Your task to perform on an android device: Turn on the flashlight Image 0: 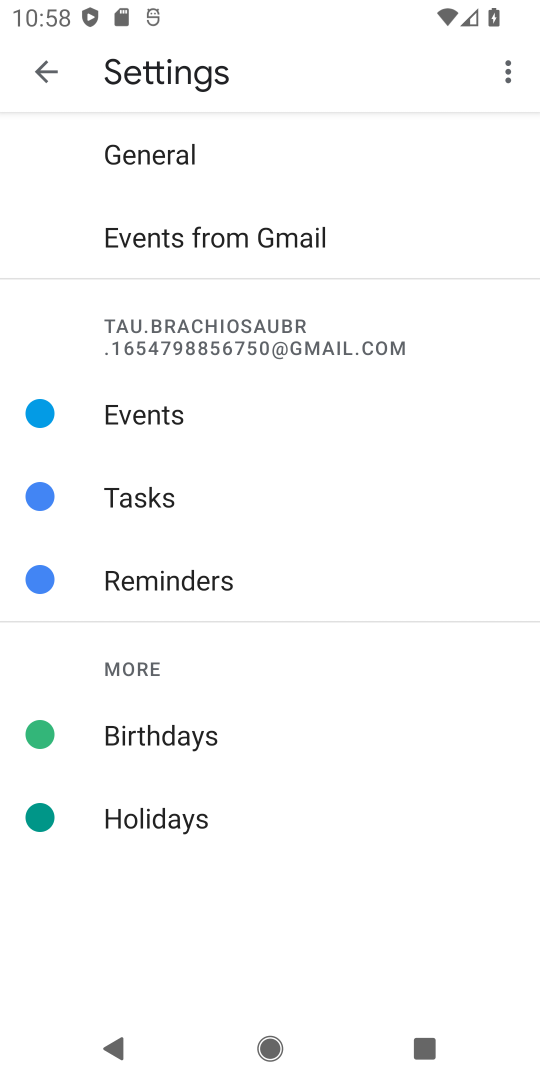
Step 0: press home button
Your task to perform on an android device: Turn on the flashlight Image 1: 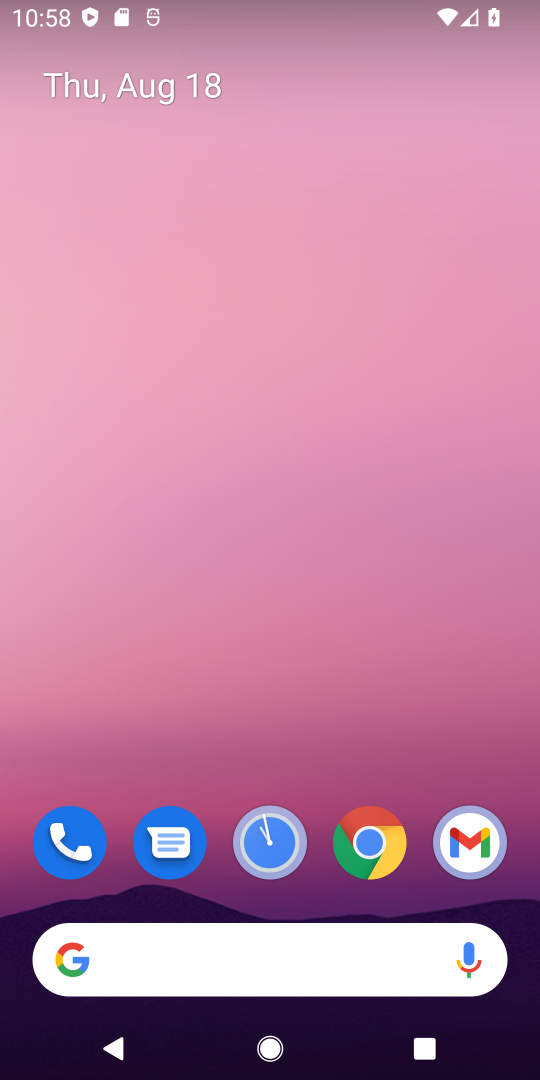
Step 1: drag from (129, 892) to (99, 304)
Your task to perform on an android device: Turn on the flashlight Image 2: 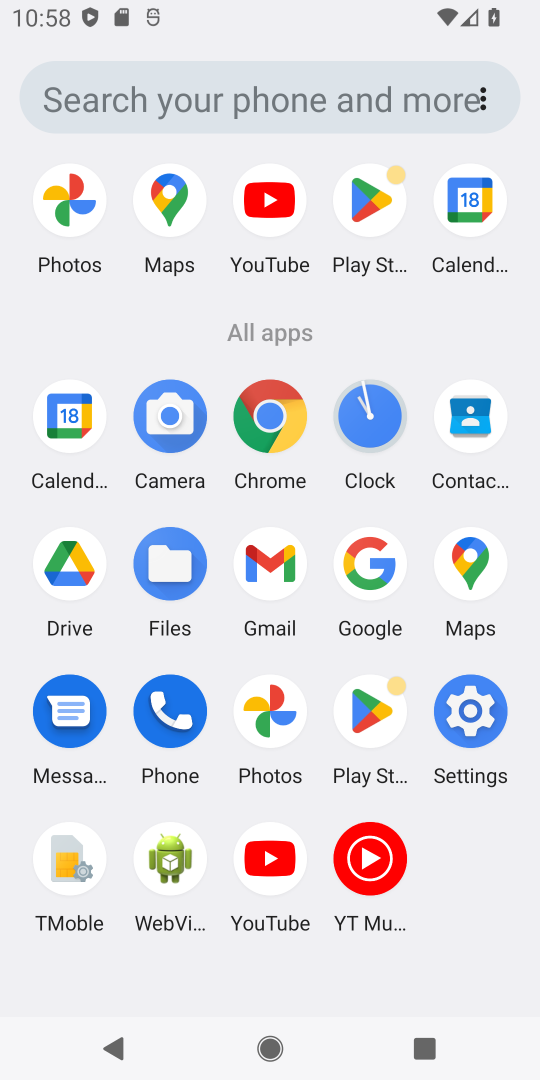
Step 2: click (437, 843)
Your task to perform on an android device: Turn on the flashlight Image 3: 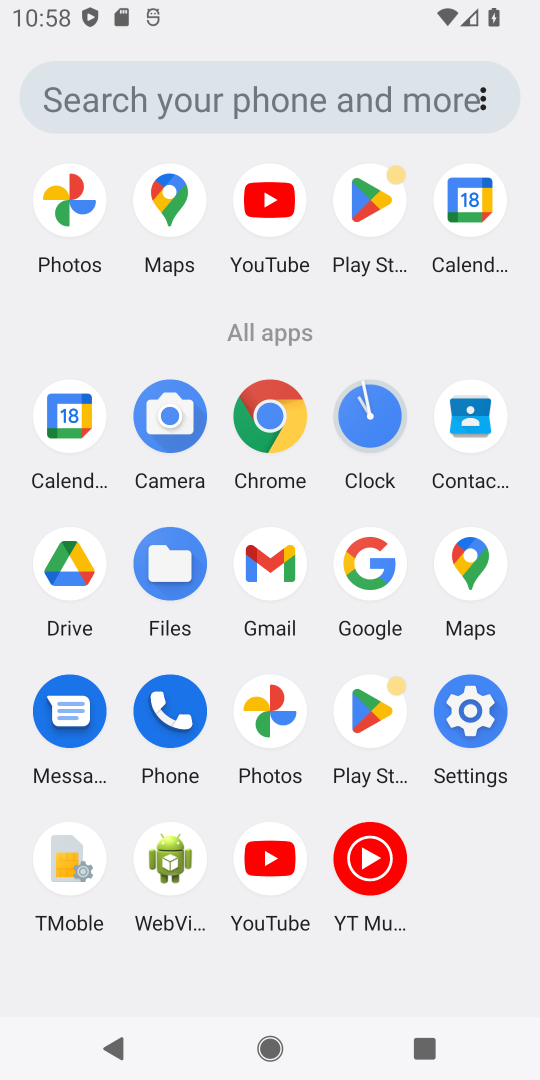
Step 3: click (471, 746)
Your task to perform on an android device: Turn on the flashlight Image 4: 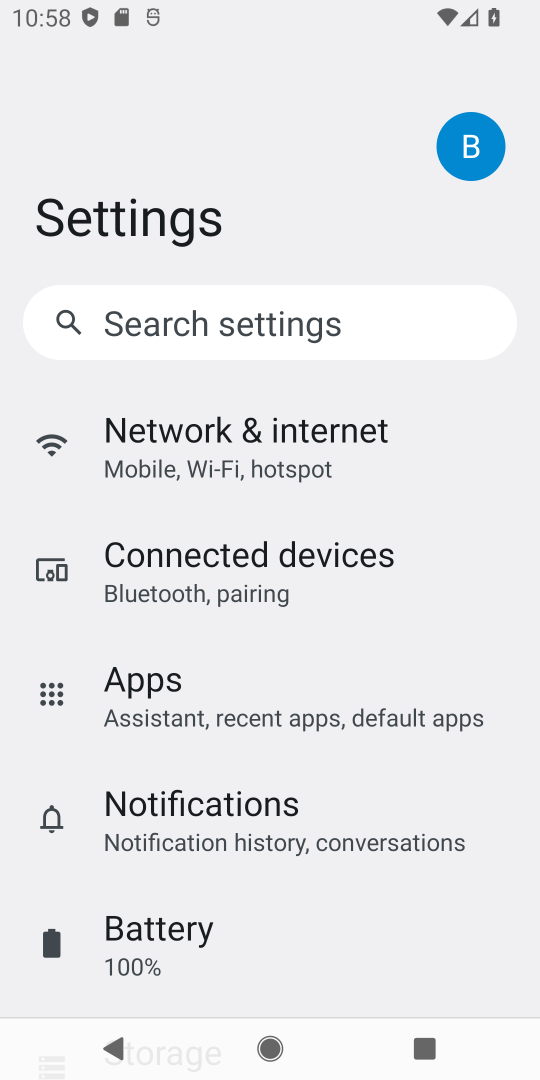
Step 4: task complete